Your task to perform on an android device: Go to wifi settings Image 0: 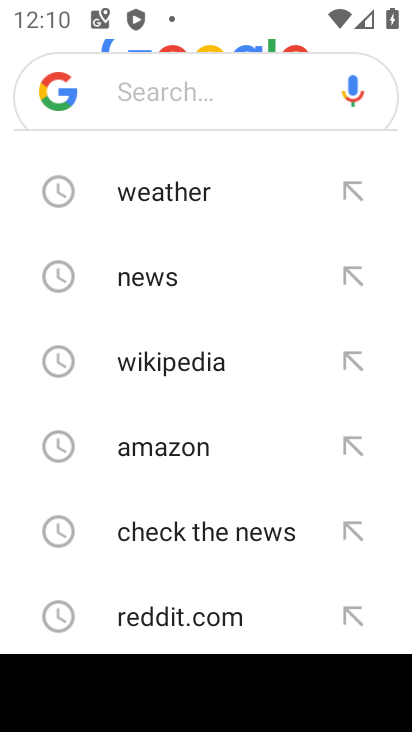
Step 0: press home button
Your task to perform on an android device: Go to wifi settings Image 1: 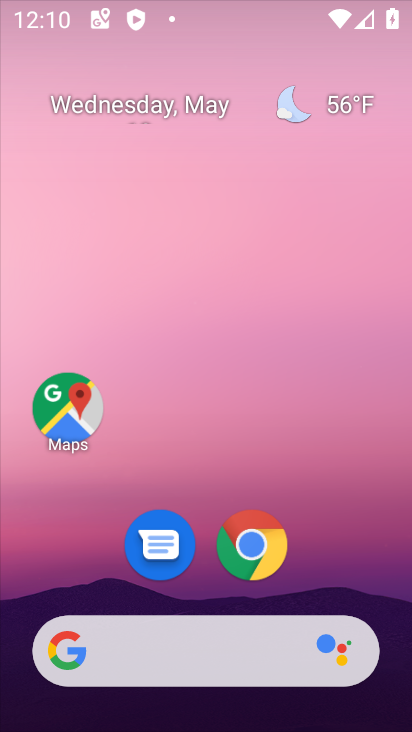
Step 1: drag from (269, 627) to (272, 204)
Your task to perform on an android device: Go to wifi settings Image 2: 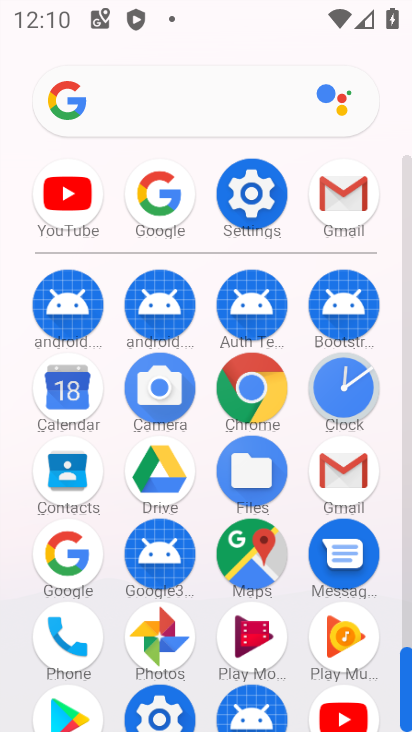
Step 2: click (254, 198)
Your task to perform on an android device: Go to wifi settings Image 3: 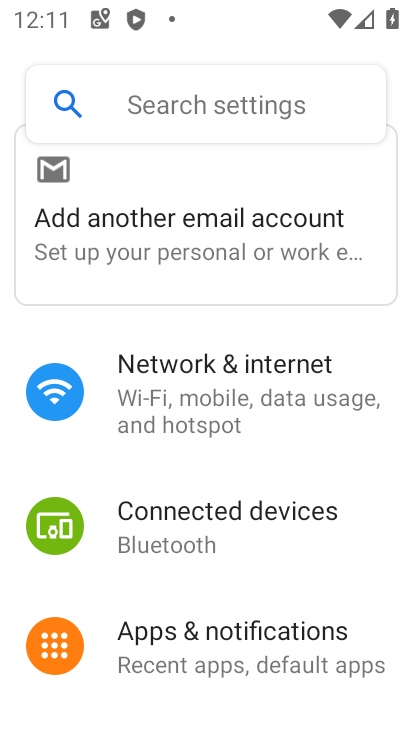
Step 3: drag from (212, 502) to (211, 435)
Your task to perform on an android device: Go to wifi settings Image 4: 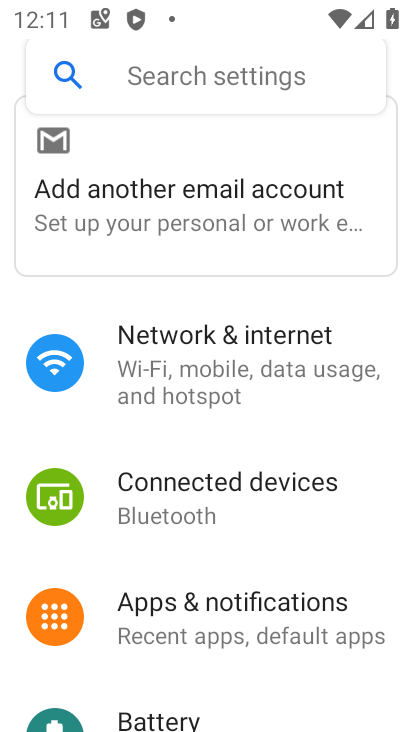
Step 4: click (226, 383)
Your task to perform on an android device: Go to wifi settings Image 5: 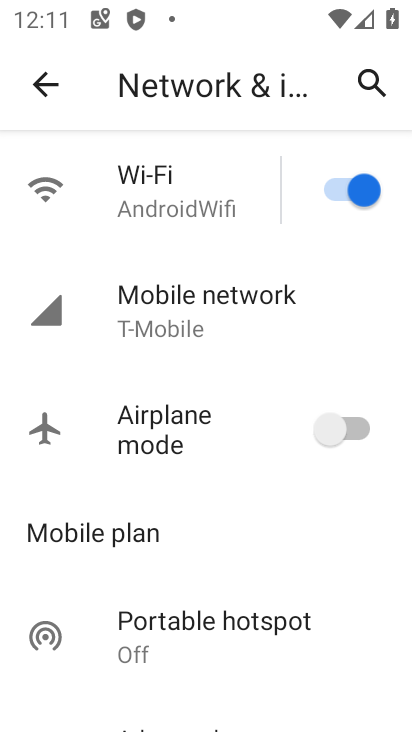
Step 5: click (141, 213)
Your task to perform on an android device: Go to wifi settings Image 6: 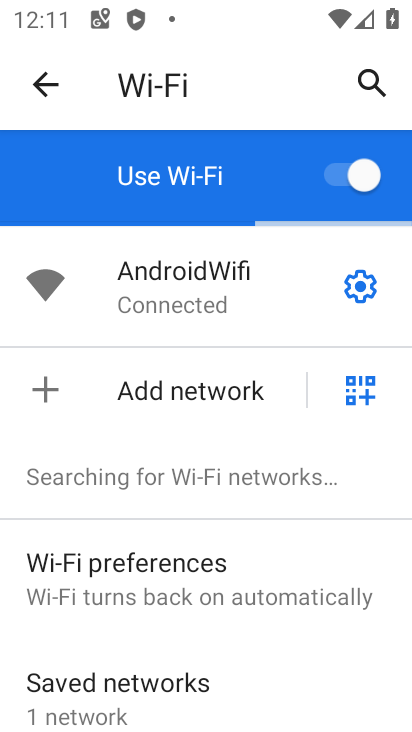
Step 6: task complete